Your task to perform on an android device: Open Maps and search for coffee Image 0: 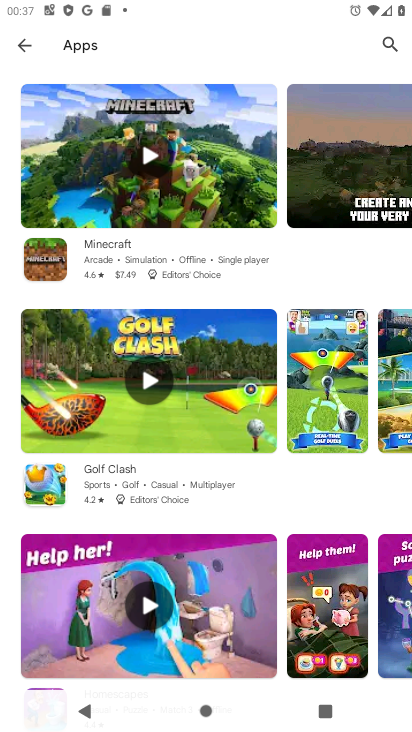
Step 0: press home button
Your task to perform on an android device: Open Maps and search for coffee Image 1: 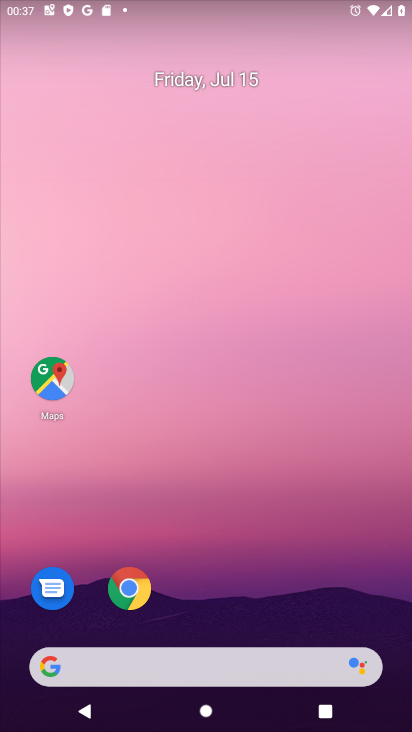
Step 1: click (53, 388)
Your task to perform on an android device: Open Maps and search for coffee Image 2: 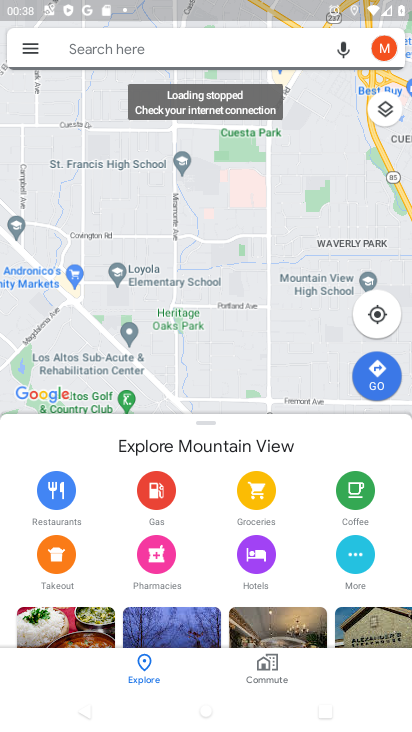
Step 2: click (163, 47)
Your task to perform on an android device: Open Maps and search for coffee Image 3: 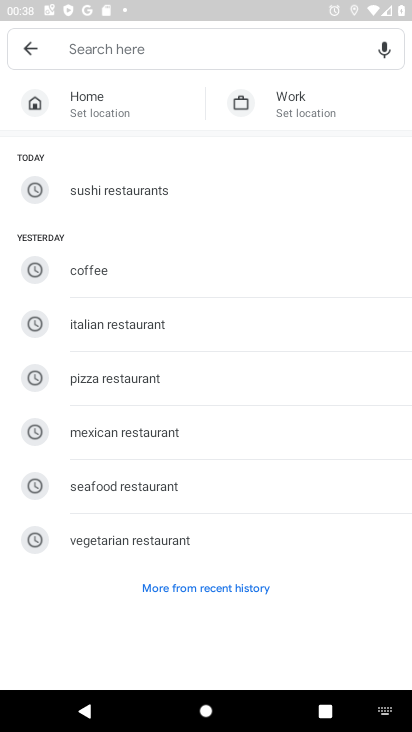
Step 3: click (93, 271)
Your task to perform on an android device: Open Maps and search for coffee Image 4: 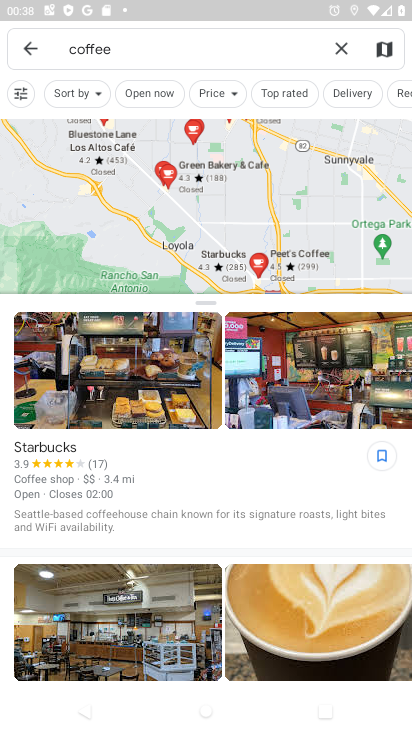
Step 4: task complete